Your task to perform on an android device: toggle javascript in the chrome app Image 0: 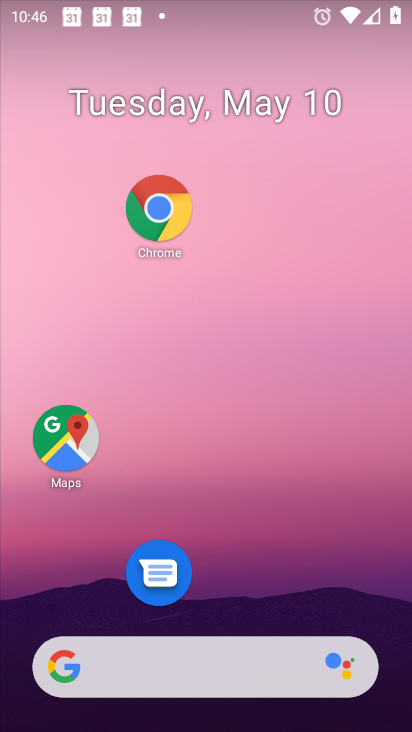
Step 0: drag from (222, 696) to (176, 172)
Your task to perform on an android device: toggle javascript in the chrome app Image 1: 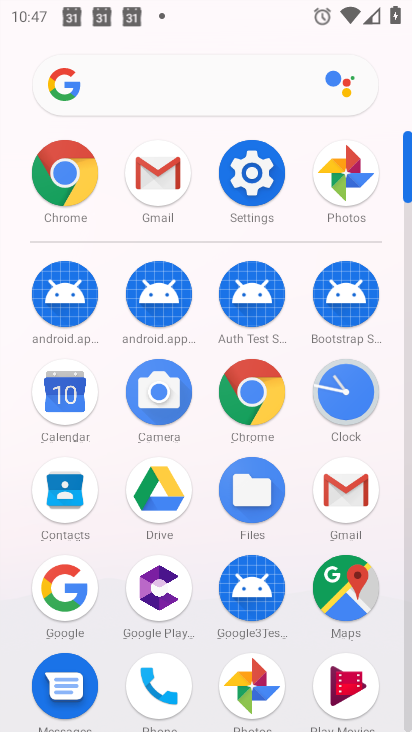
Step 1: click (61, 188)
Your task to perform on an android device: toggle javascript in the chrome app Image 2: 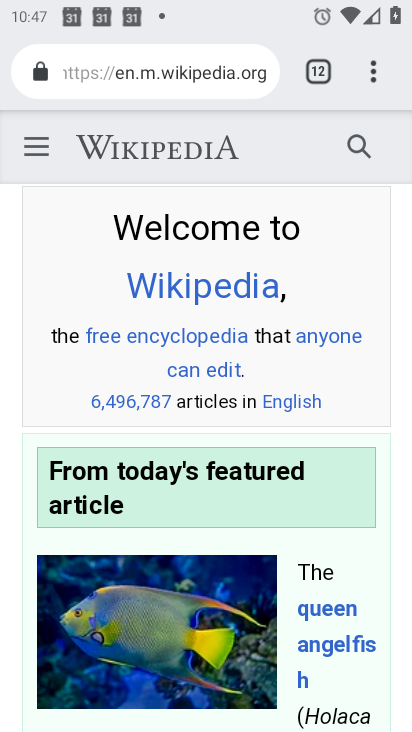
Step 2: click (368, 75)
Your task to perform on an android device: toggle javascript in the chrome app Image 3: 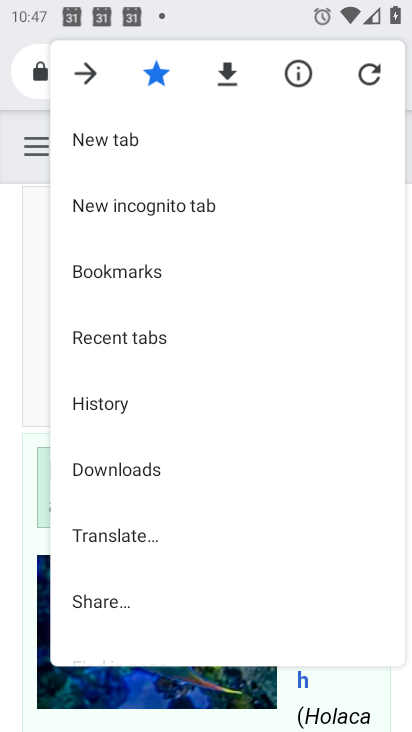
Step 3: drag from (238, 421) to (283, 214)
Your task to perform on an android device: toggle javascript in the chrome app Image 4: 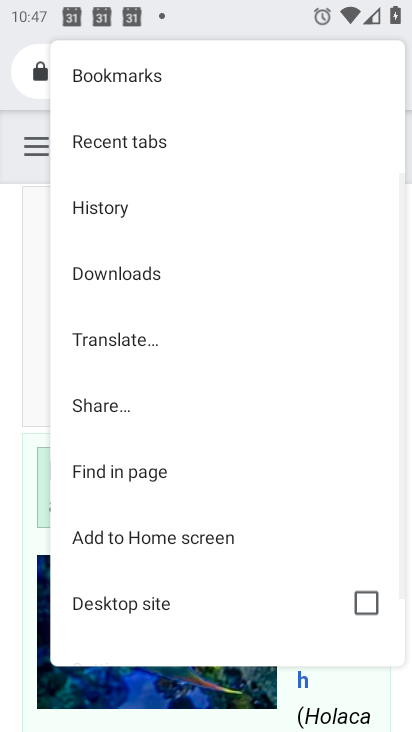
Step 4: drag from (165, 546) to (240, 332)
Your task to perform on an android device: toggle javascript in the chrome app Image 5: 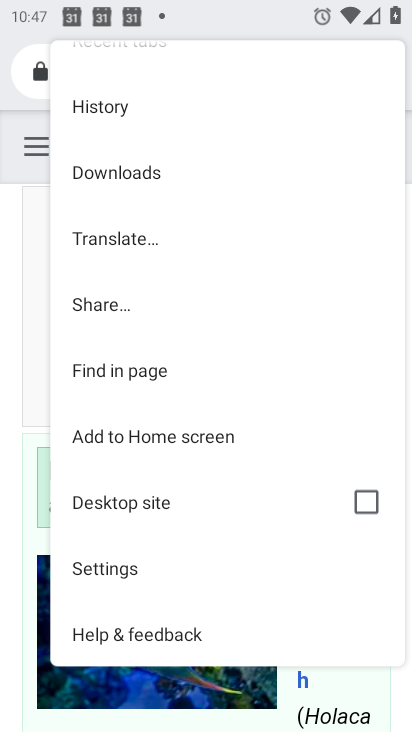
Step 5: click (111, 563)
Your task to perform on an android device: toggle javascript in the chrome app Image 6: 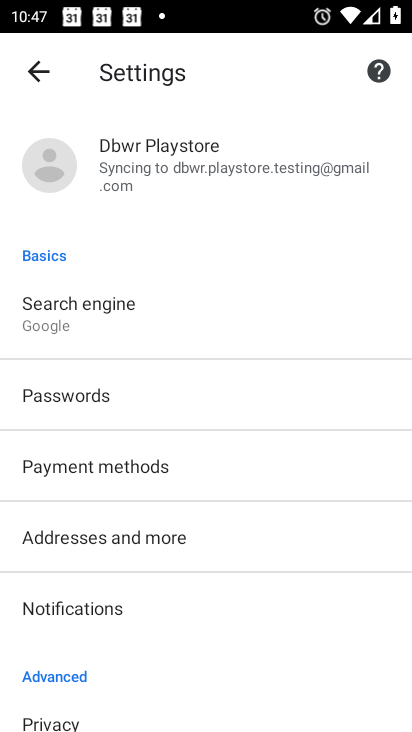
Step 6: drag from (171, 638) to (180, 415)
Your task to perform on an android device: toggle javascript in the chrome app Image 7: 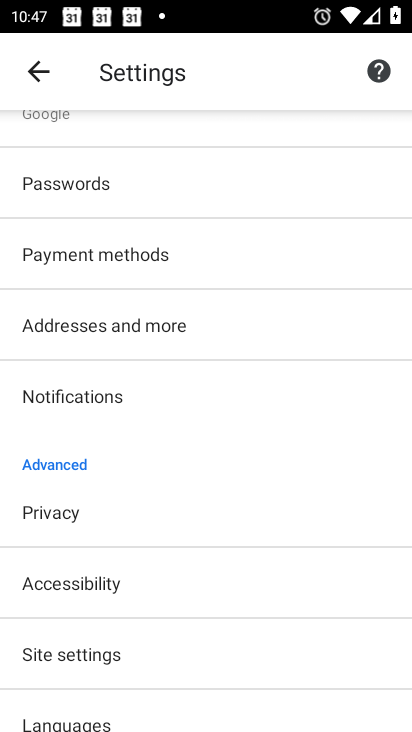
Step 7: drag from (119, 671) to (130, 551)
Your task to perform on an android device: toggle javascript in the chrome app Image 8: 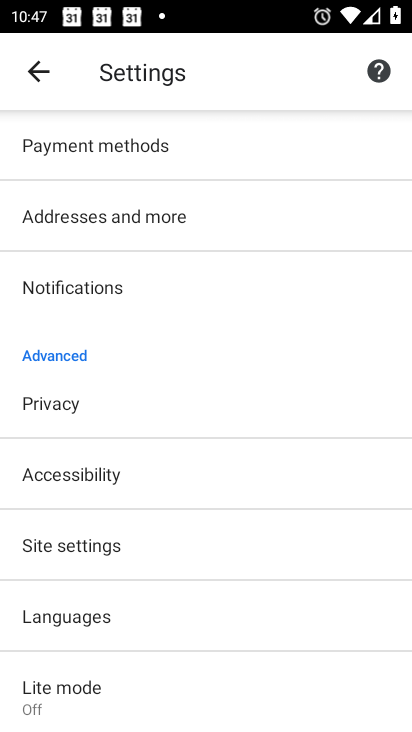
Step 8: click (92, 544)
Your task to perform on an android device: toggle javascript in the chrome app Image 9: 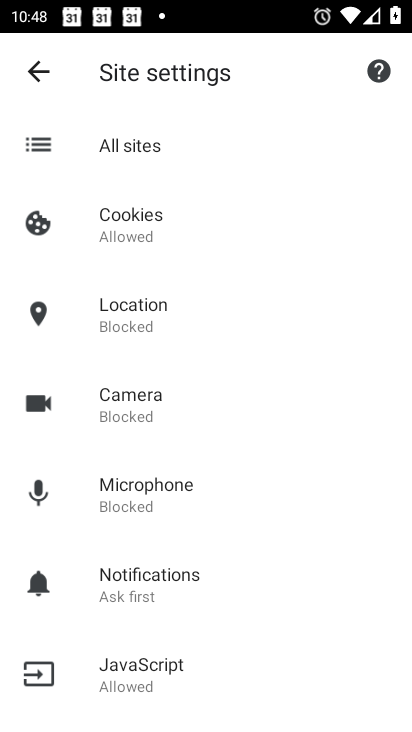
Step 9: click (137, 662)
Your task to perform on an android device: toggle javascript in the chrome app Image 10: 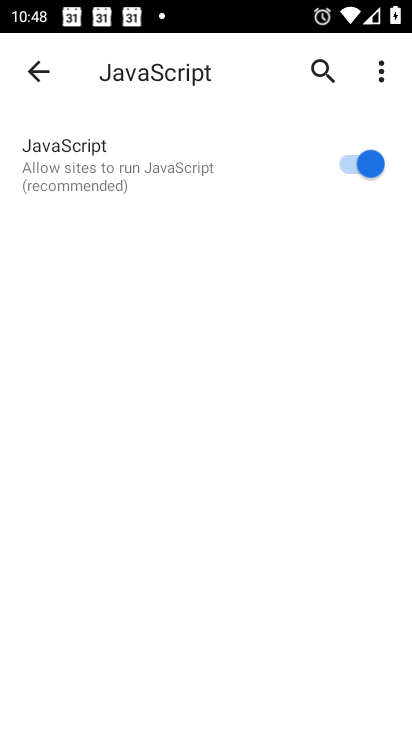
Step 10: task complete